Your task to perform on an android device: add a label to a message in the gmail app Image 0: 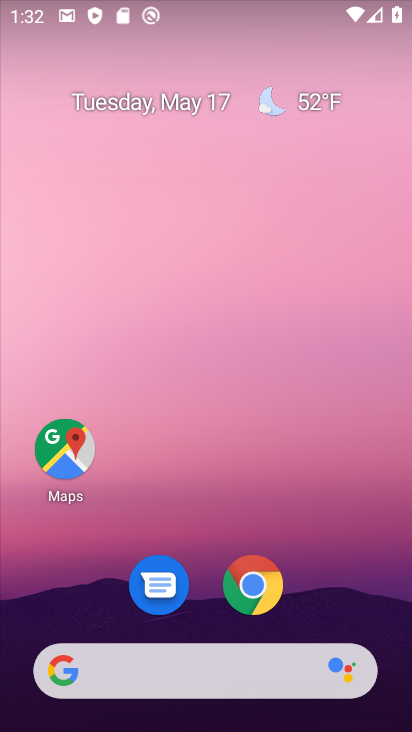
Step 0: drag from (289, 506) to (350, 20)
Your task to perform on an android device: add a label to a message in the gmail app Image 1: 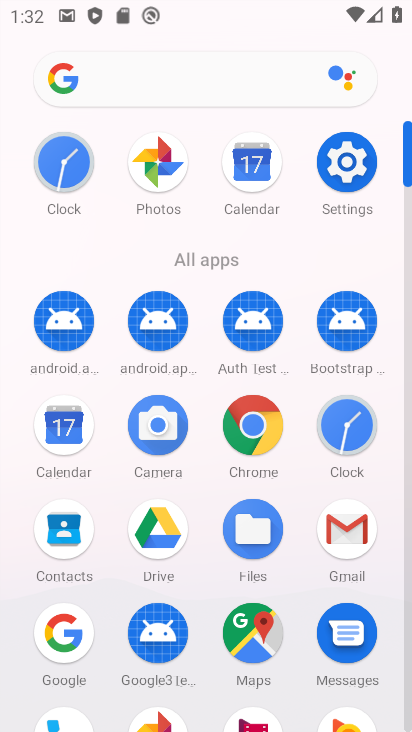
Step 1: click (331, 515)
Your task to perform on an android device: add a label to a message in the gmail app Image 2: 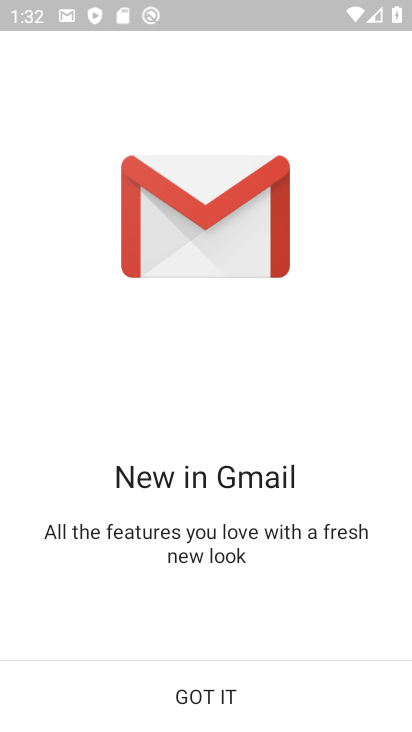
Step 2: click (249, 687)
Your task to perform on an android device: add a label to a message in the gmail app Image 3: 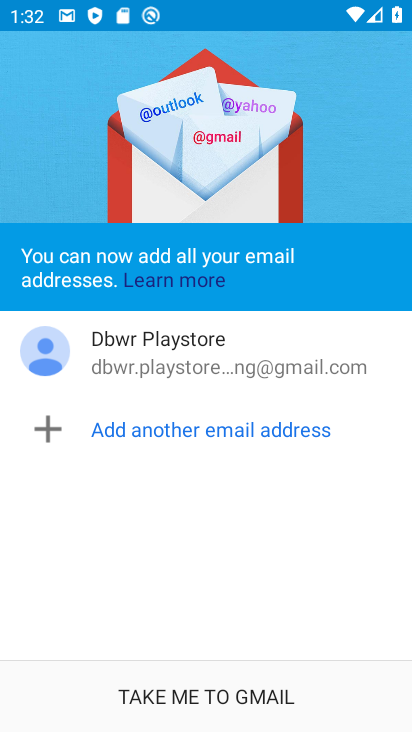
Step 3: click (260, 696)
Your task to perform on an android device: add a label to a message in the gmail app Image 4: 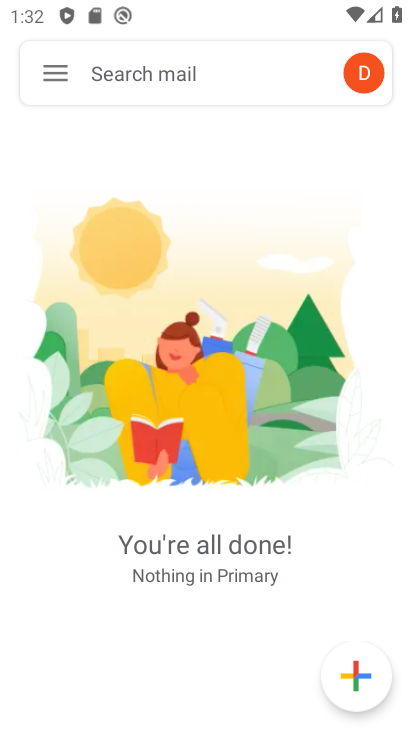
Step 4: click (61, 68)
Your task to perform on an android device: add a label to a message in the gmail app Image 5: 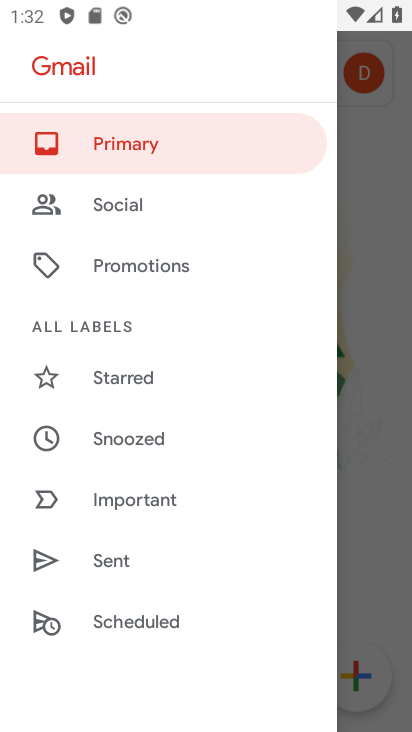
Step 5: drag from (146, 545) to (156, 248)
Your task to perform on an android device: add a label to a message in the gmail app Image 6: 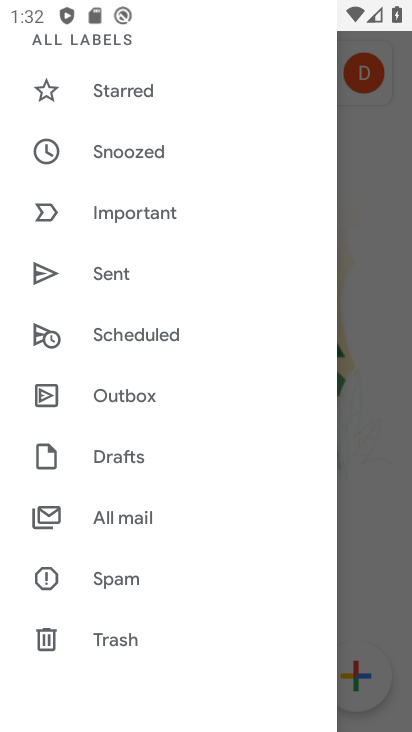
Step 6: click (140, 510)
Your task to perform on an android device: add a label to a message in the gmail app Image 7: 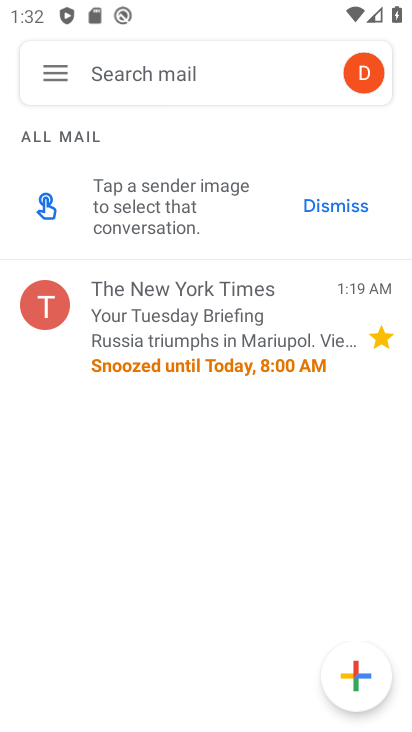
Step 7: click (307, 304)
Your task to perform on an android device: add a label to a message in the gmail app Image 8: 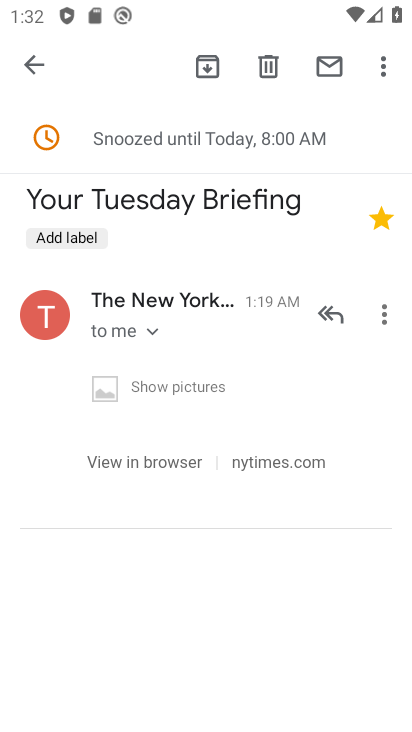
Step 8: click (382, 68)
Your task to perform on an android device: add a label to a message in the gmail app Image 9: 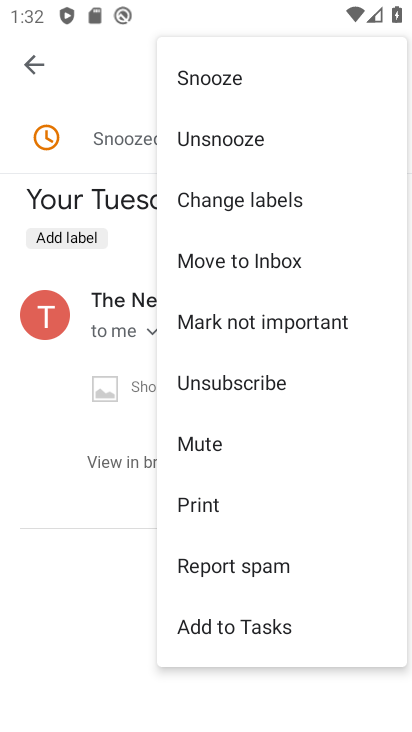
Step 9: click (282, 201)
Your task to perform on an android device: add a label to a message in the gmail app Image 10: 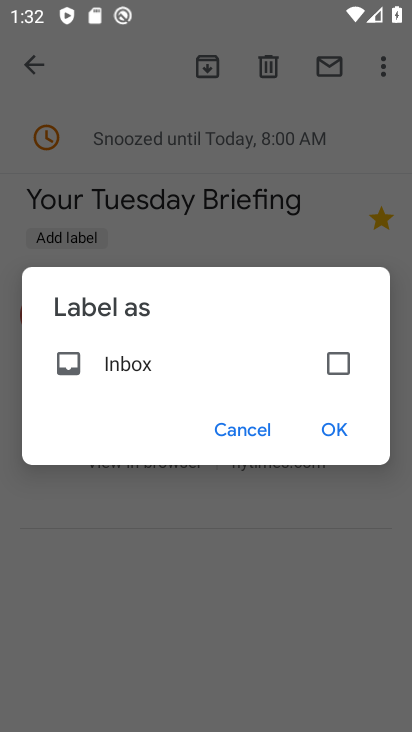
Step 10: click (333, 364)
Your task to perform on an android device: add a label to a message in the gmail app Image 11: 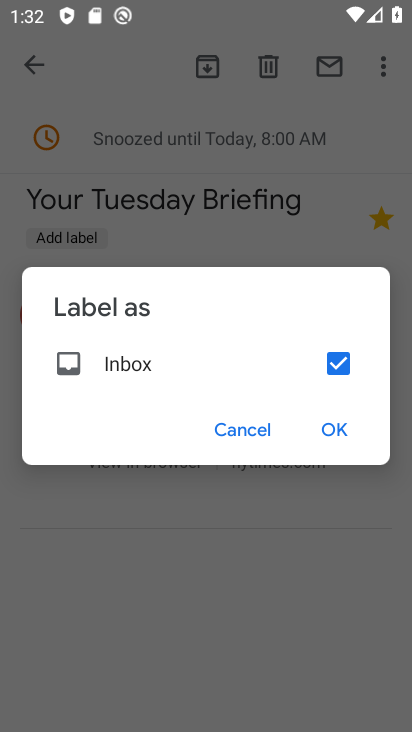
Step 11: click (335, 421)
Your task to perform on an android device: add a label to a message in the gmail app Image 12: 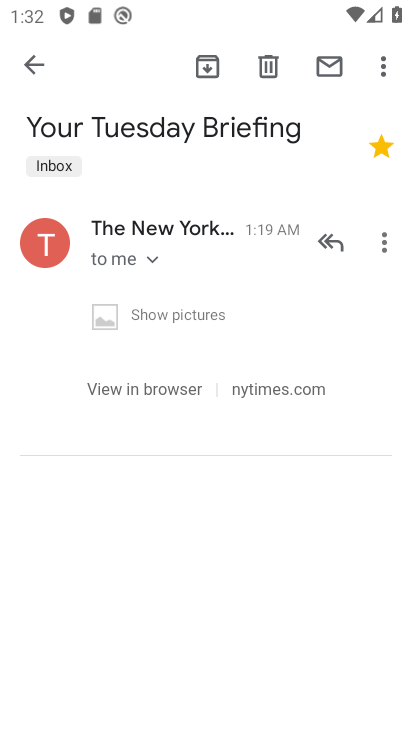
Step 12: task complete